Your task to perform on an android device: Do I have any events this weekend? Image 0: 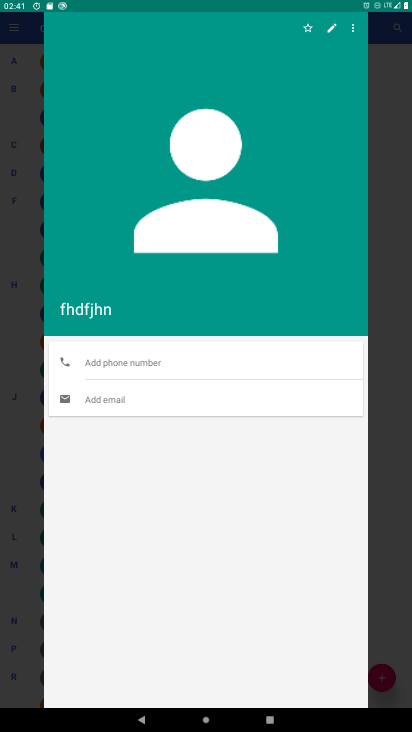
Step 0: press home button
Your task to perform on an android device: Do I have any events this weekend? Image 1: 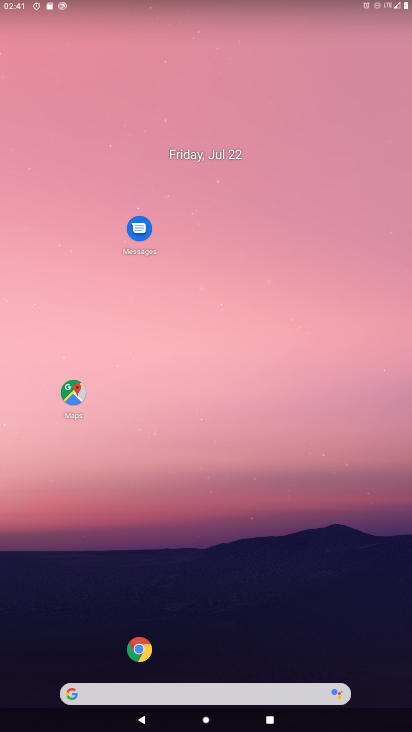
Step 1: drag from (117, 423) to (191, 75)
Your task to perform on an android device: Do I have any events this weekend? Image 2: 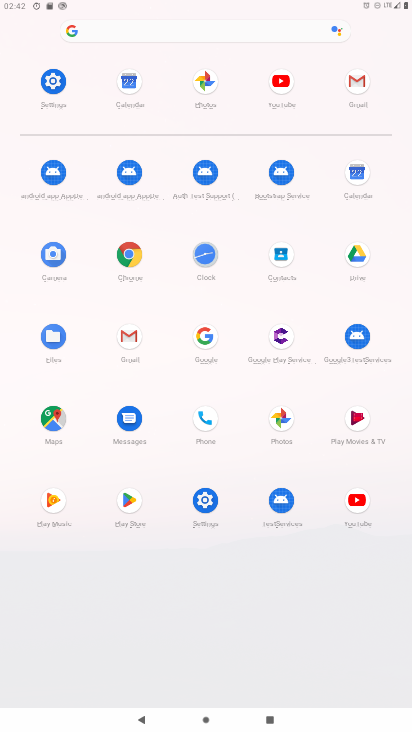
Step 2: click (352, 174)
Your task to perform on an android device: Do I have any events this weekend? Image 3: 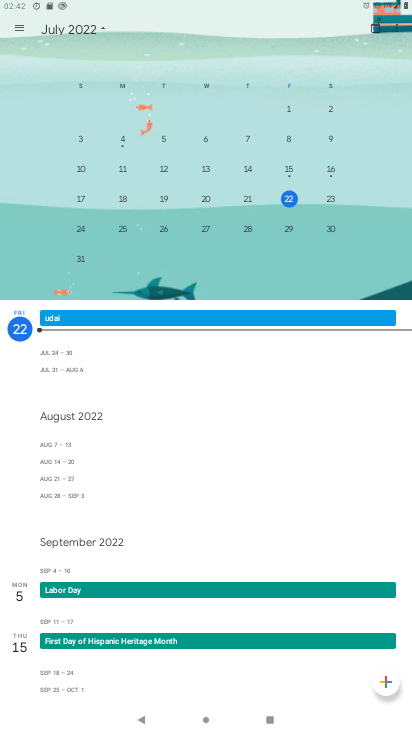
Step 3: task complete